Your task to perform on an android device: Open Yahoo.com Image 0: 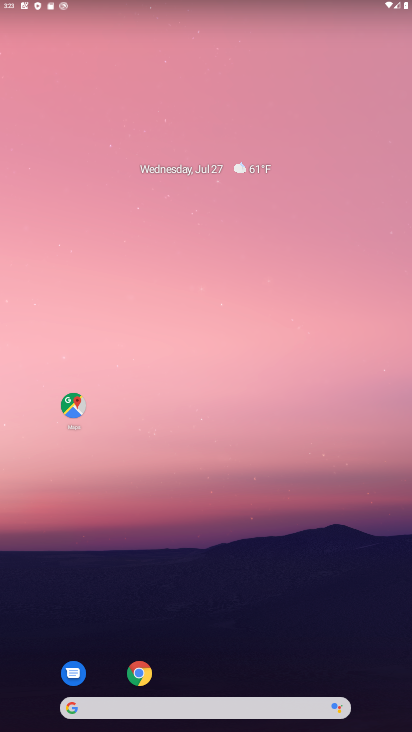
Step 0: click (141, 671)
Your task to perform on an android device: Open Yahoo.com Image 1: 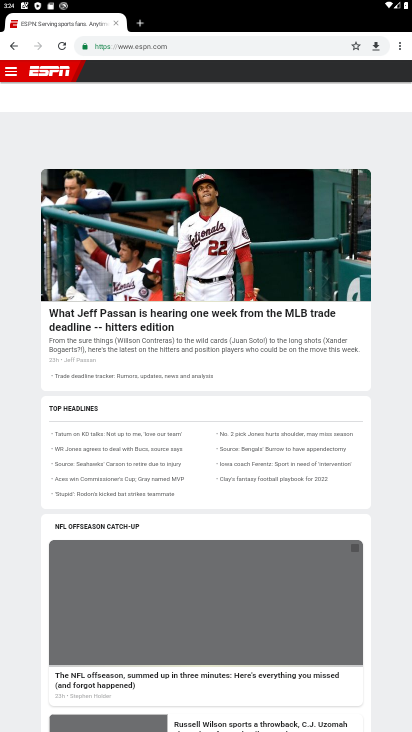
Step 1: click (205, 44)
Your task to perform on an android device: Open Yahoo.com Image 2: 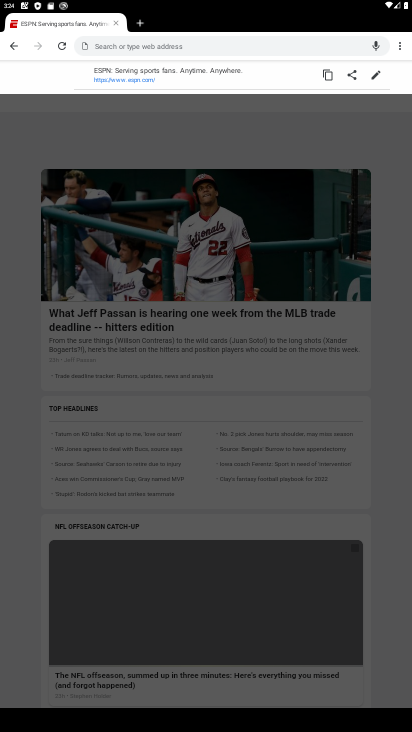
Step 2: type "yahoo.com"
Your task to perform on an android device: Open Yahoo.com Image 3: 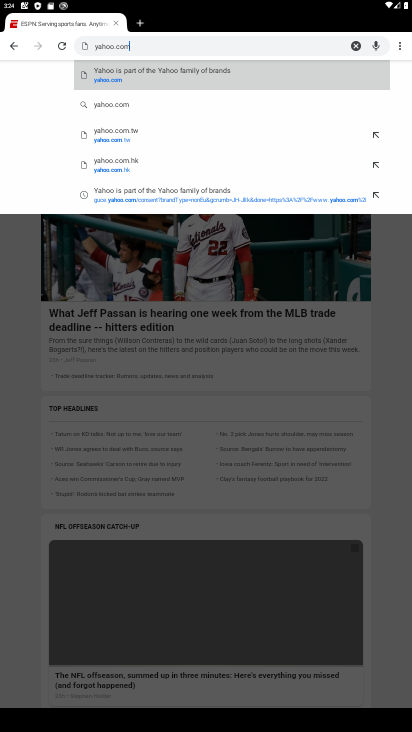
Step 3: click (179, 63)
Your task to perform on an android device: Open Yahoo.com Image 4: 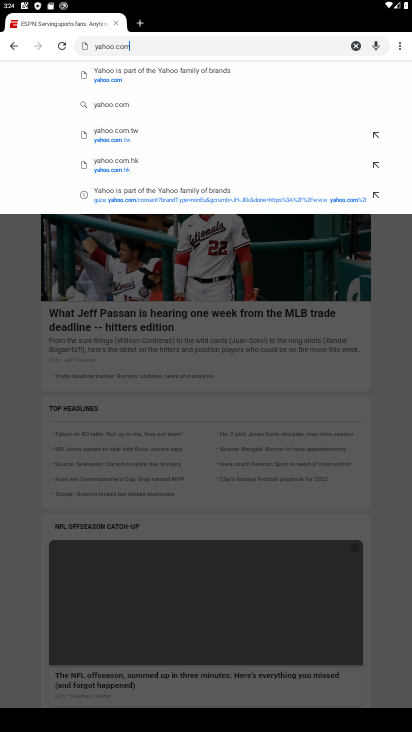
Step 4: click (127, 77)
Your task to perform on an android device: Open Yahoo.com Image 5: 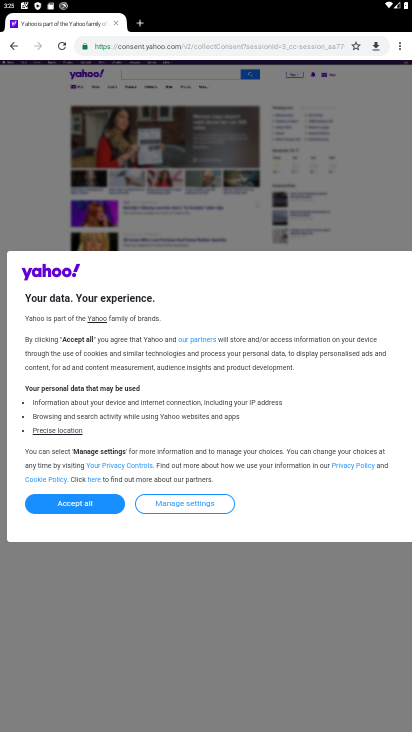
Step 5: task complete